Your task to perform on an android device: toggle data saver in the chrome app Image 0: 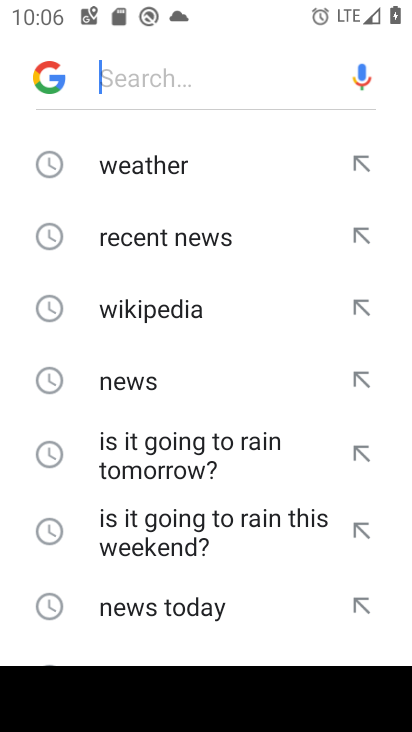
Step 0: press home button
Your task to perform on an android device: toggle data saver in the chrome app Image 1: 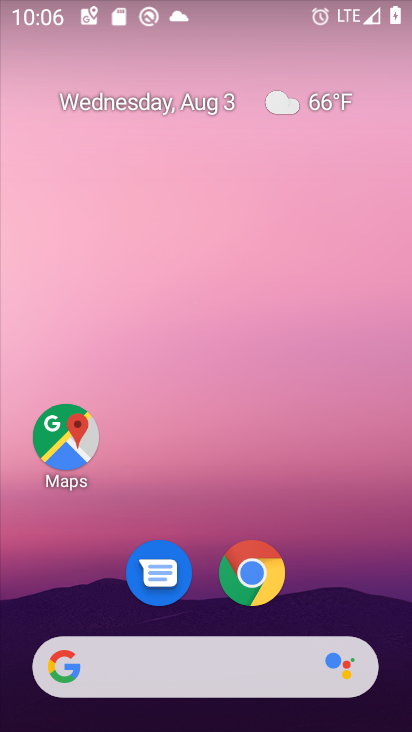
Step 1: click (251, 573)
Your task to perform on an android device: toggle data saver in the chrome app Image 2: 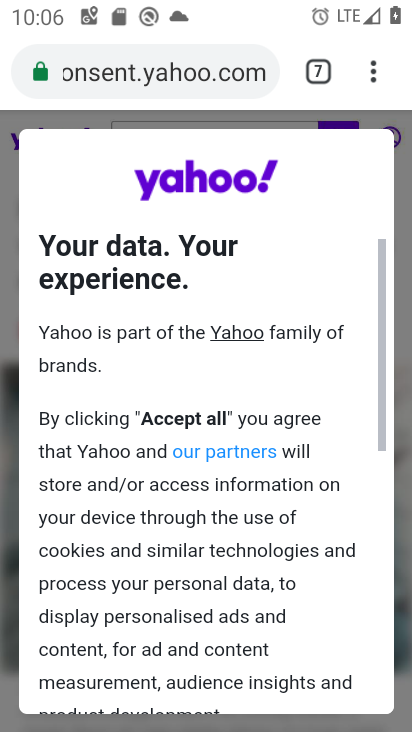
Step 2: drag from (377, 80) to (194, 575)
Your task to perform on an android device: toggle data saver in the chrome app Image 3: 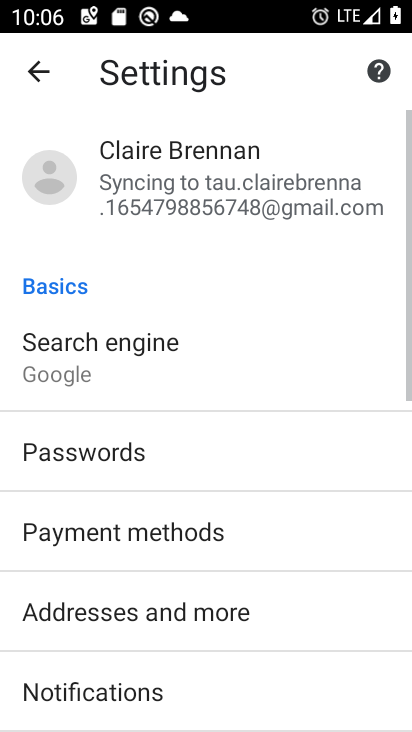
Step 3: drag from (228, 665) to (200, 176)
Your task to perform on an android device: toggle data saver in the chrome app Image 4: 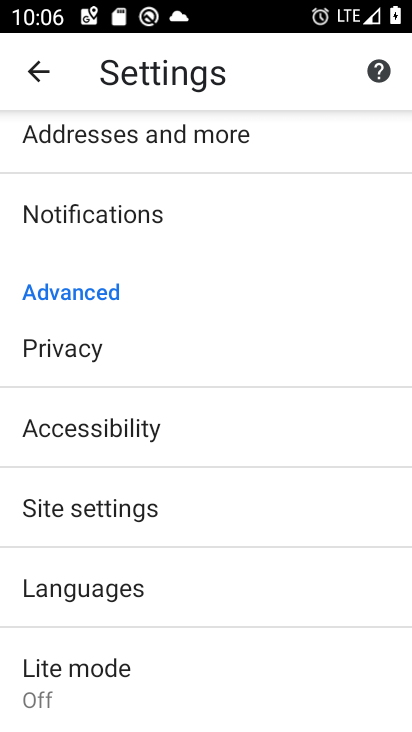
Step 4: click (85, 688)
Your task to perform on an android device: toggle data saver in the chrome app Image 5: 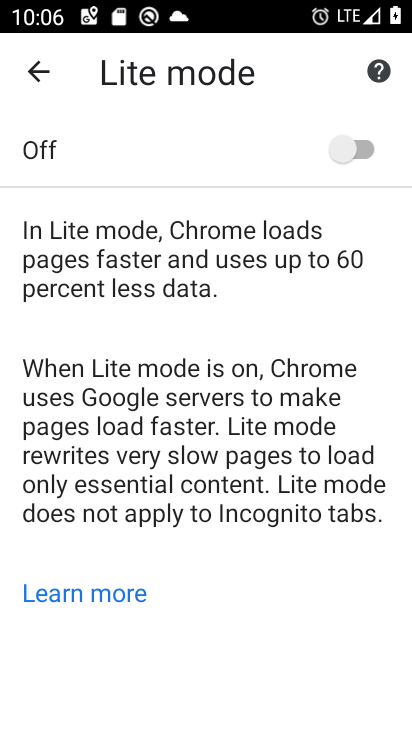
Step 5: click (340, 167)
Your task to perform on an android device: toggle data saver in the chrome app Image 6: 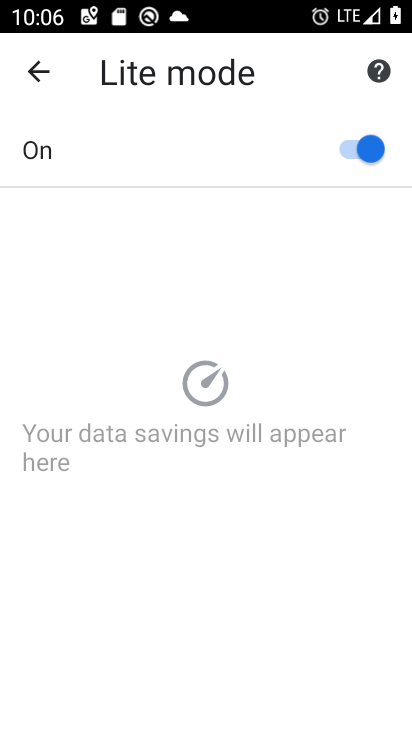
Step 6: task complete